Your task to perform on an android device: Show me recent news Image 0: 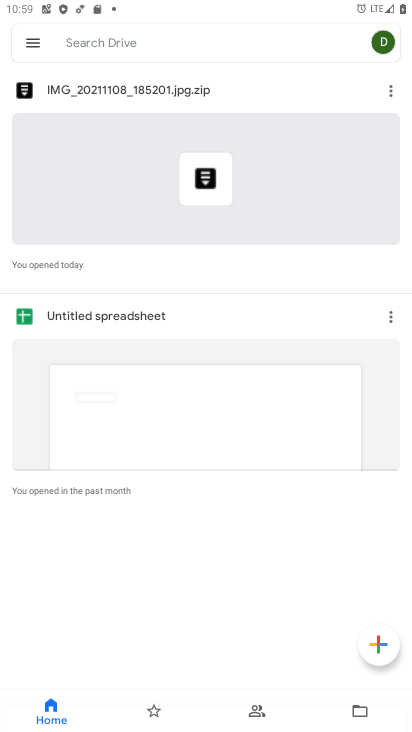
Step 0: press home button
Your task to perform on an android device: Show me recent news Image 1: 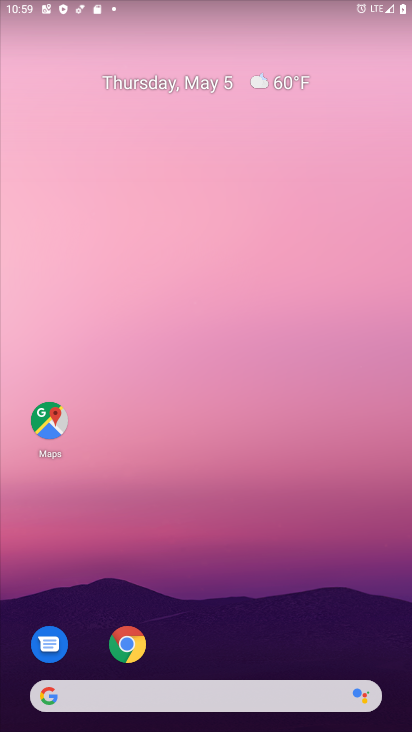
Step 1: click (139, 650)
Your task to perform on an android device: Show me recent news Image 2: 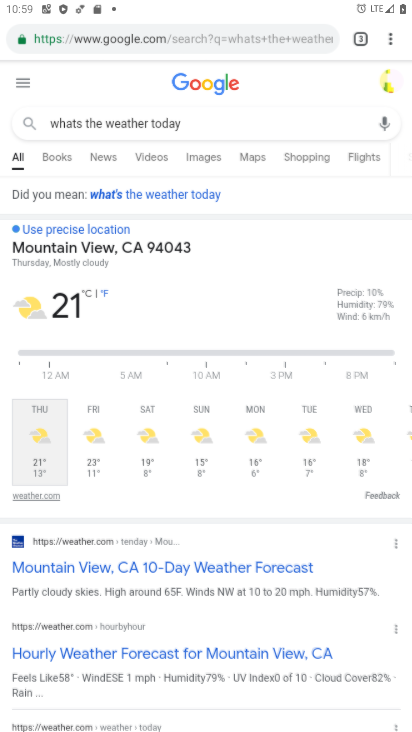
Step 2: click (244, 34)
Your task to perform on an android device: Show me recent news Image 3: 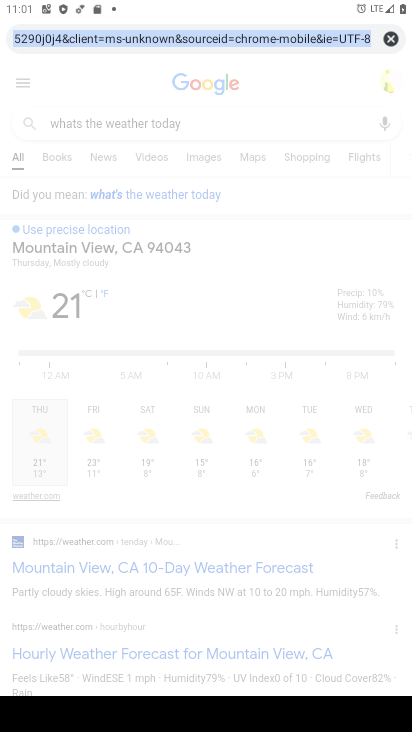
Step 3: type "recent news"
Your task to perform on an android device: Show me recent news Image 4: 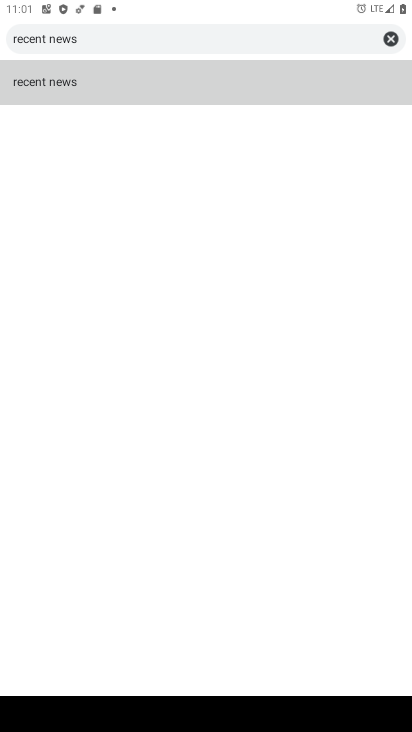
Step 4: click (40, 78)
Your task to perform on an android device: Show me recent news Image 5: 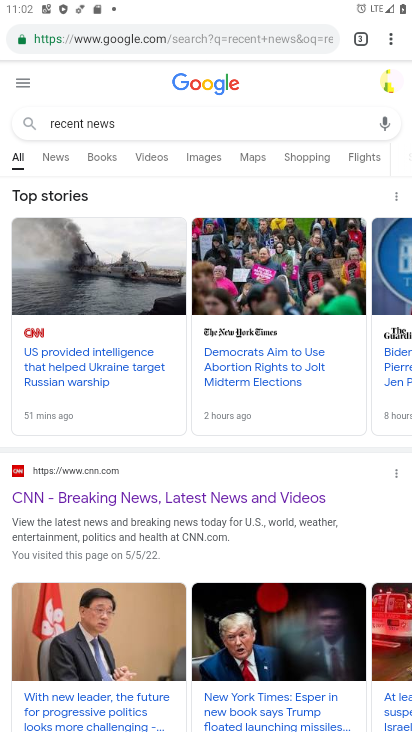
Step 5: task complete